Your task to perform on an android device: remove spam from my inbox in the gmail app Image 0: 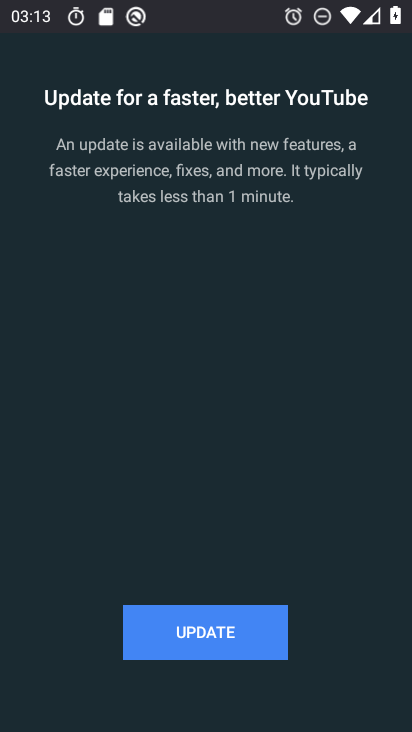
Step 0: press home button
Your task to perform on an android device: remove spam from my inbox in the gmail app Image 1: 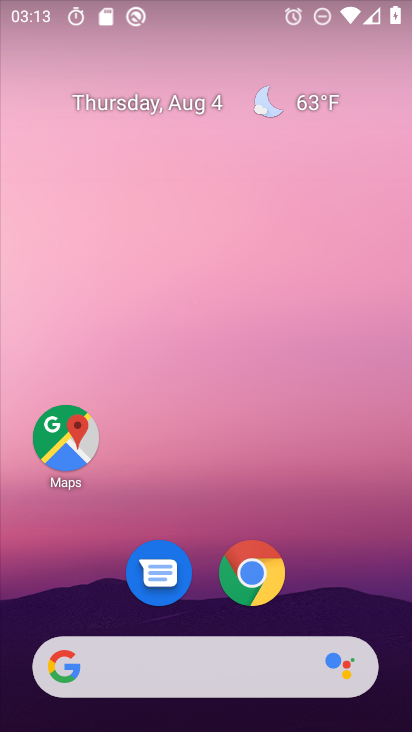
Step 1: drag from (352, 552) to (331, 25)
Your task to perform on an android device: remove spam from my inbox in the gmail app Image 2: 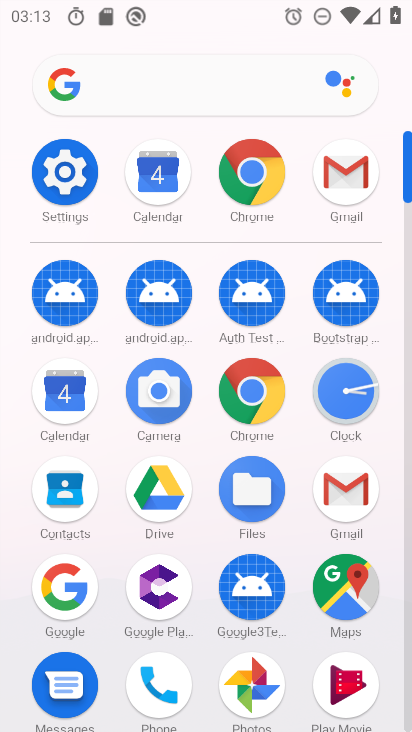
Step 2: click (335, 183)
Your task to perform on an android device: remove spam from my inbox in the gmail app Image 3: 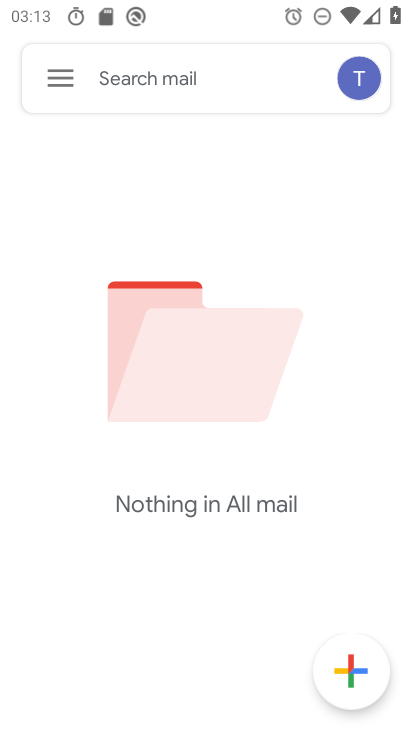
Step 3: click (40, 49)
Your task to perform on an android device: remove spam from my inbox in the gmail app Image 4: 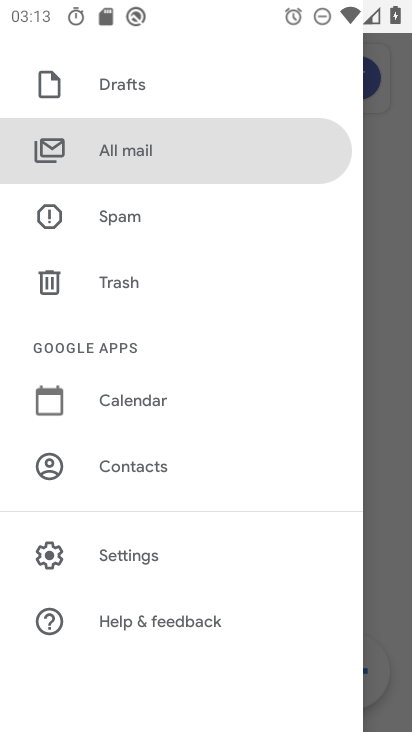
Step 4: drag from (149, 186) to (243, 697)
Your task to perform on an android device: remove spam from my inbox in the gmail app Image 5: 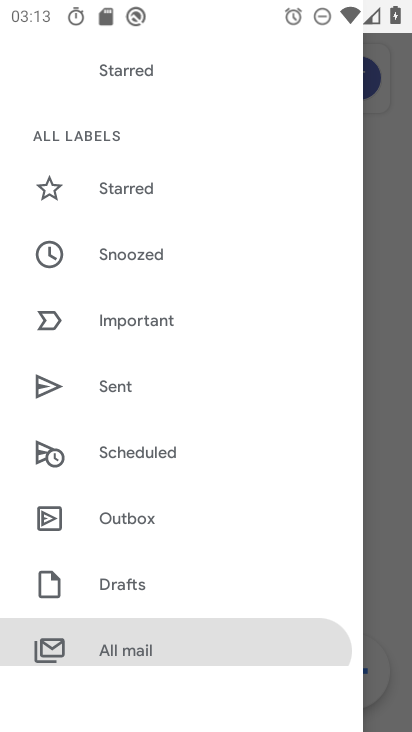
Step 5: drag from (151, 134) to (231, 548)
Your task to perform on an android device: remove spam from my inbox in the gmail app Image 6: 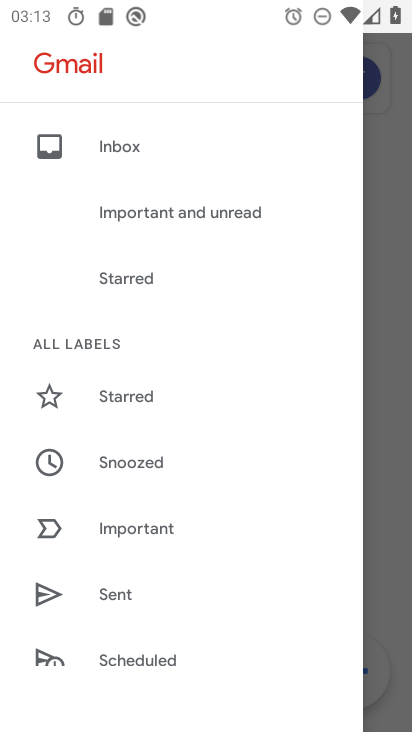
Step 6: click (130, 144)
Your task to perform on an android device: remove spam from my inbox in the gmail app Image 7: 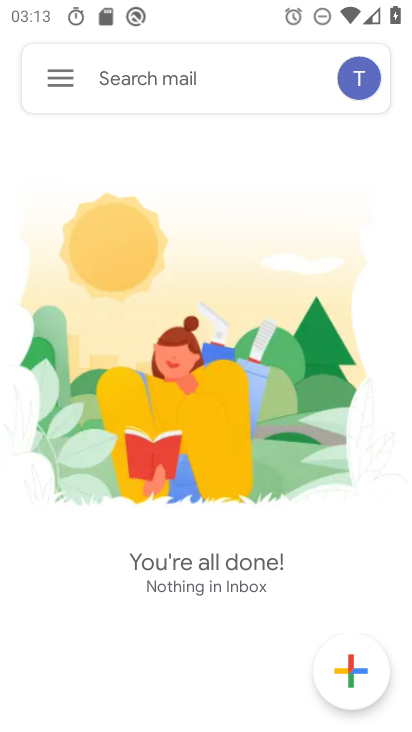
Step 7: task complete